Your task to perform on an android device: Open the phone app and click the voicemail tab. Image 0: 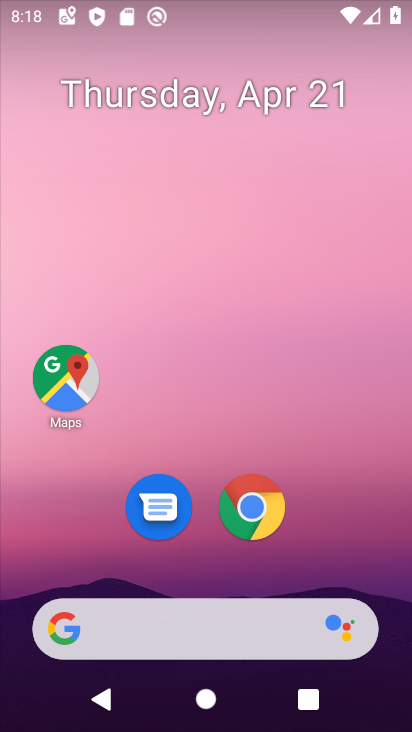
Step 0: drag from (353, 525) to (353, 216)
Your task to perform on an android device: Open the phone app and click the voicemail tab. Image 1: 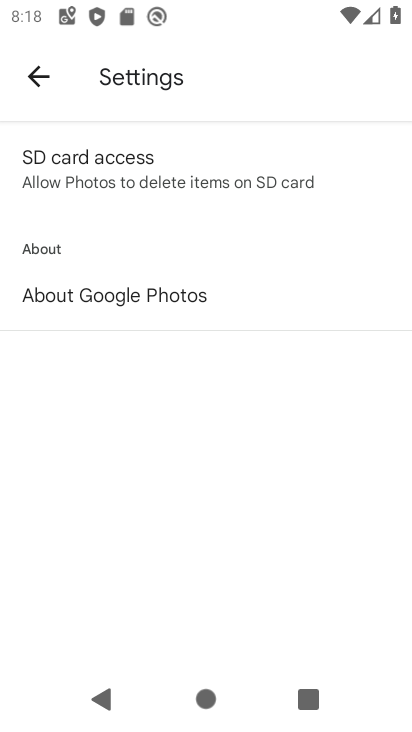
Step 1: press home button
Your task to perform on an android device: Open the phone app and click the voicemail tab. Image 2: 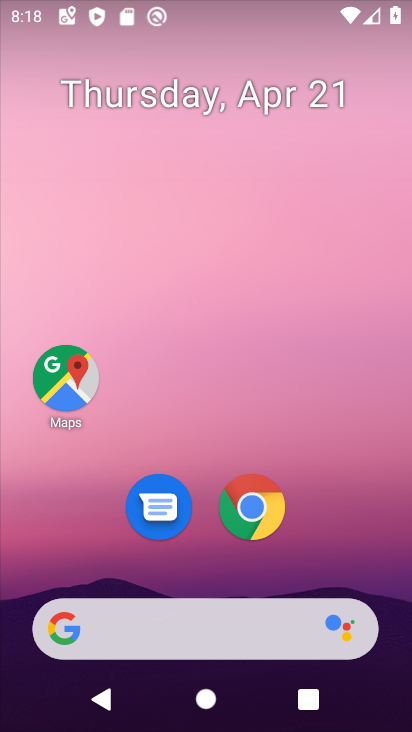
Step 2: drag from (380, 519) to (382, 241)
Your task to perform on an android device: Open the phone app and click the voicemail tab. Image 3: 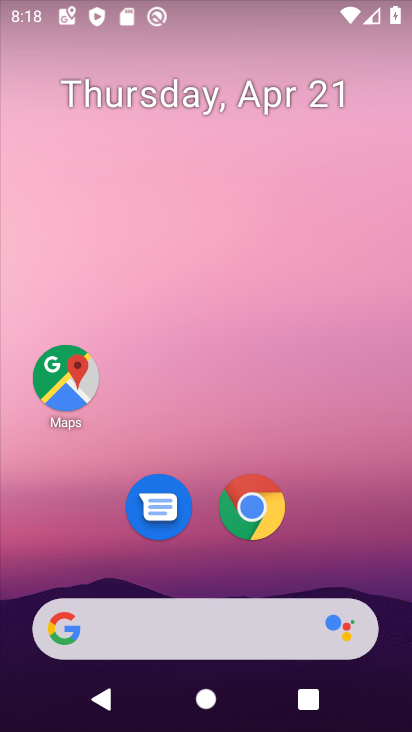
Step 3: drag from (333, 550) to (331, 208)
Your task to perform on an android device: Open the phone app and click the voicemail tab. Image 4: 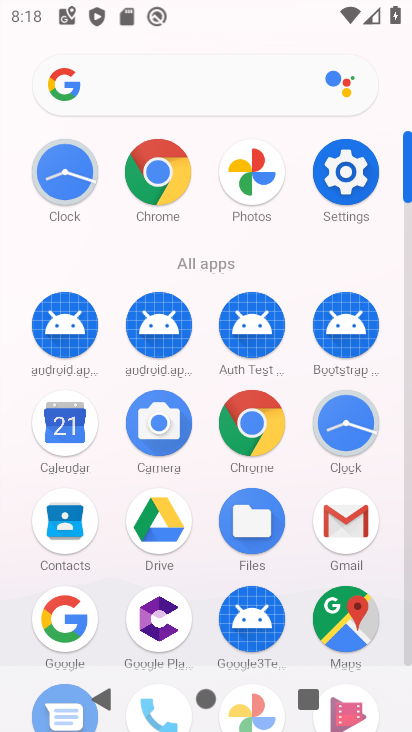
Step 4: drag from (186, 575) to (266, 201)
Your task to perform on an android device: Open the phone app and click the voicemail tab. Image 5: 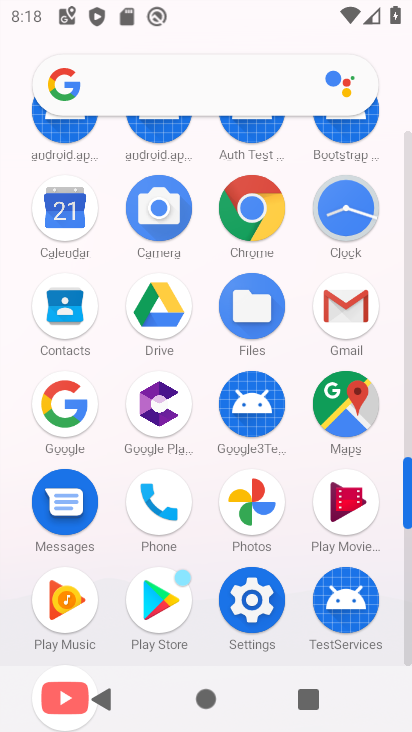
Step 5: click (150, 519)
Your task to perform on an android device: Open the phone app and click the voicemail tab. Image 6: 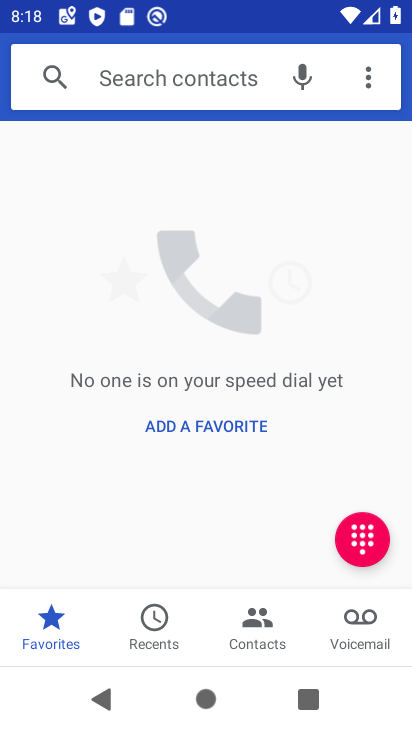
Step 6: click (349, 625)
Your task to perform on an android device: Open the phone app and click the voicemail tab. Image 7: 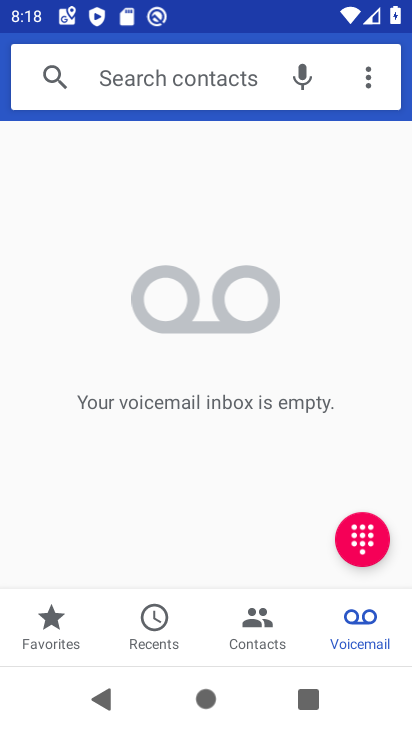
Step 7: task complete